Your task to perform on an android device: Go to calendar. Show me events next week Image 0: 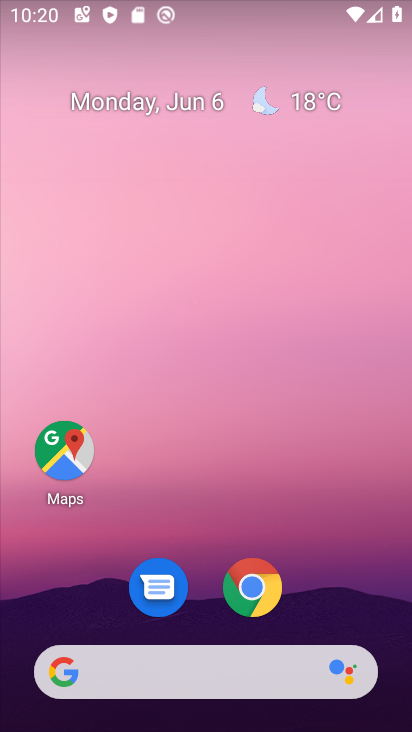
Step 0: drag from (348, 581) to (278, 110)
Your task to perform on an android device: Go to calendar. Show me events next week Image 1: 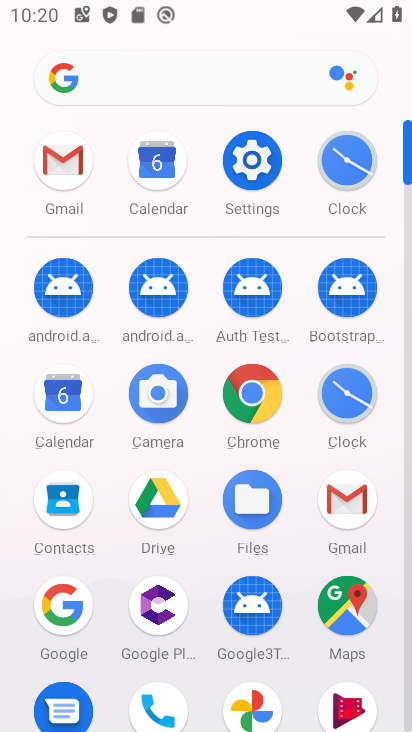
Step 1: click (161, 172)
Your task to perform on an android device: Go to calendar. Show me events next week Image 2: 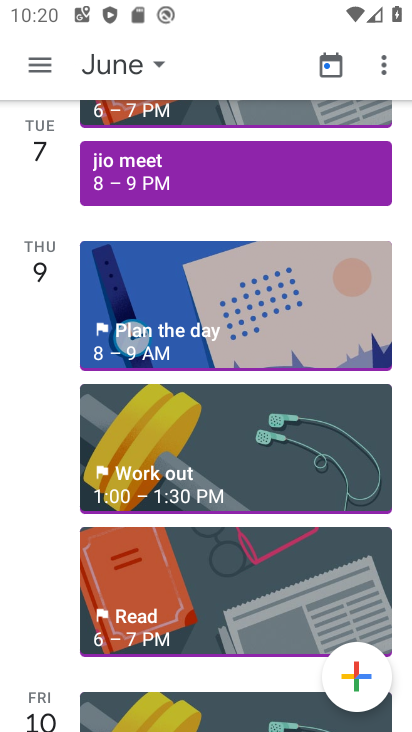
Step 2: click (49, 45)
Your task to perform on an android device: Go to calendar. Show me events next week Image 3: 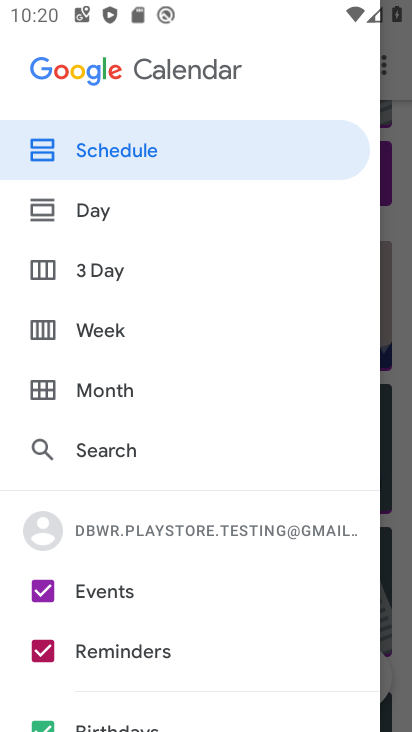
Step 3: click (86, 386)
Your task to perform on an android device: Go to calendar. Show me events next week Image 4: 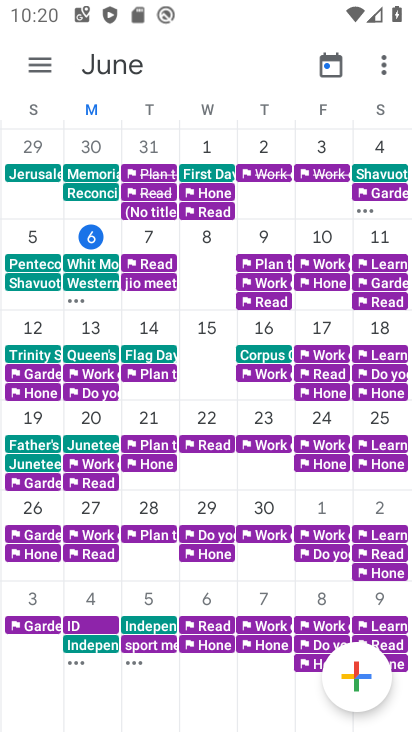
Step 4: click (31, 354)
Your task to perform on an android device: Go to calendar. Show me events next week Image 5: 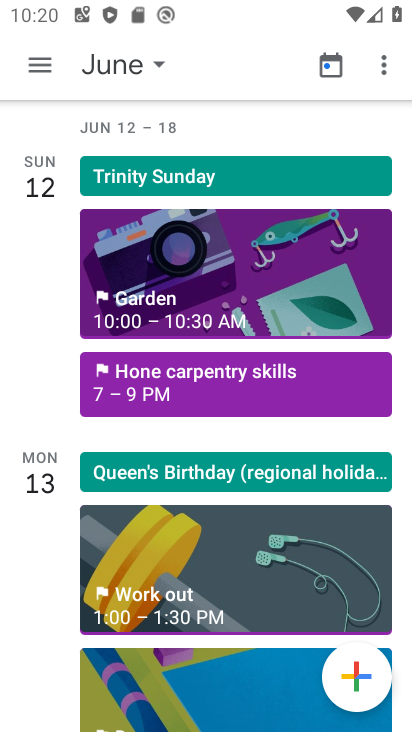
Step 5: task complete